Your task to perform on an android device: turn smart compose on in the gmail app Image 0: 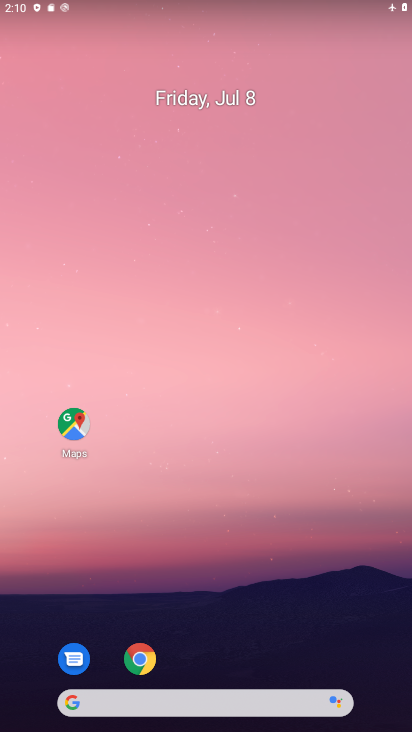
Step 0: drag from (274, 629) to (288, 131)
Your task to perform on an android device: turn smart compose on in the gmail app Image 1: 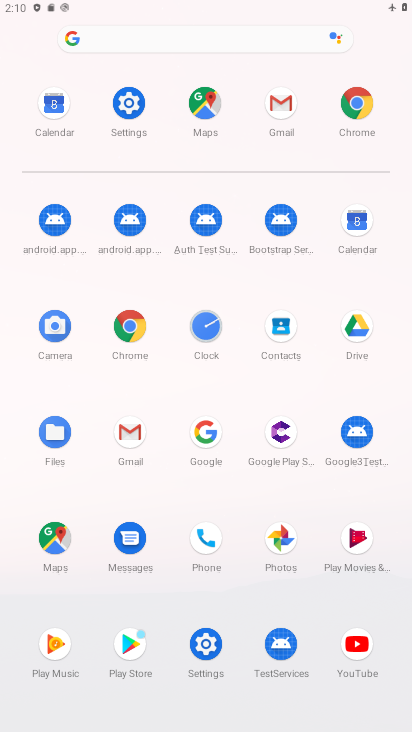
Step 1: click (123, 449)
Your task to perform on an android device: turn smart compose on in the gmail app Image 2: 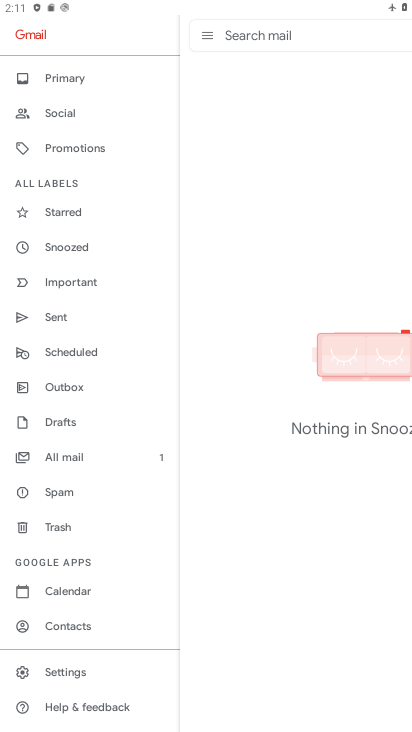
Step 2: drag from (83, 506) to (78, 327)
Your task to perform on an android device: turn smart compose on in the gmail app Image 3: 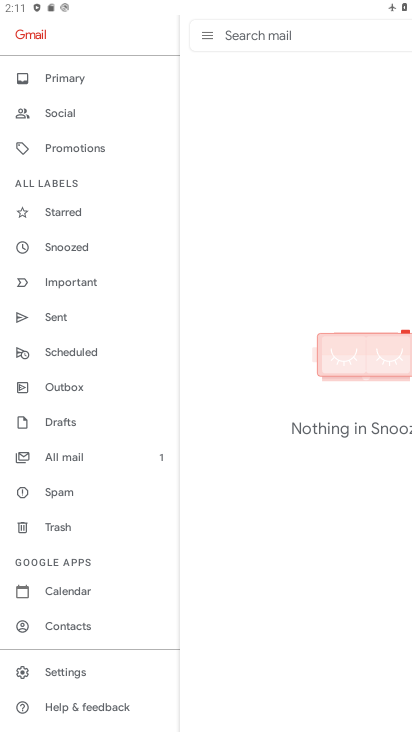
Step 3: click (55, 675)
Your task to perform on an android device: turn smart compose on in the gmail app Image 4: 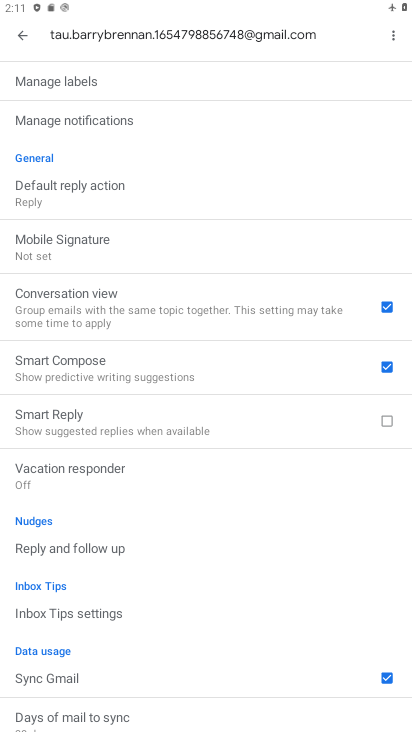
Step 4: click (370, 415)
Your task to perform on an android device: turn smart compose on in the gmail app Image 5: 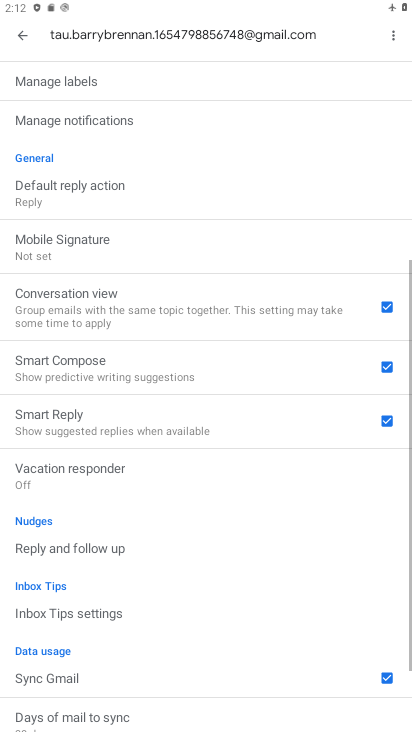
Step 5: task complete